Your task to perform on an android device: Open eBay Image 0: 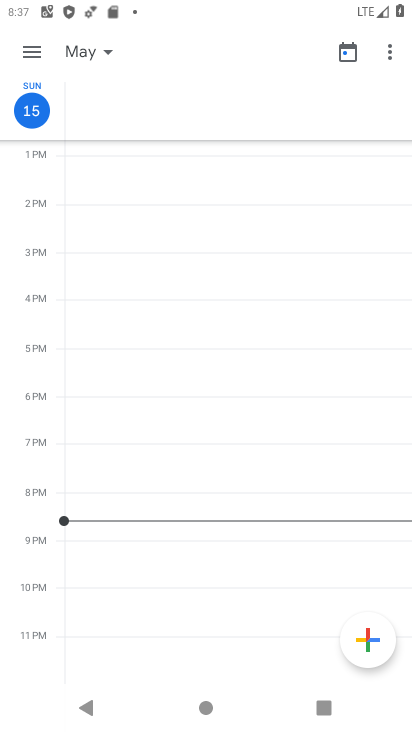
Step 0: press home button
Your task to perform on an android device: Open eBay Image 1: 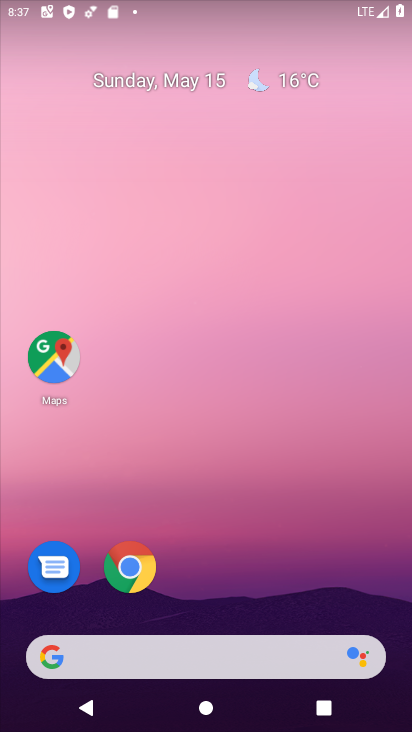
Step 1: drag from (230, 631) to (245, 99)
Your task to perform on an android device: Open eBay Image 2: 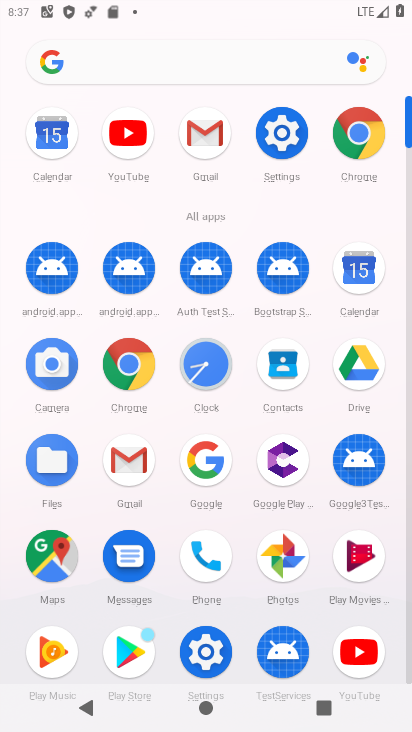
Step 2: click (350, 149)
Your task to perform on an android device: Open eBay Image 3: 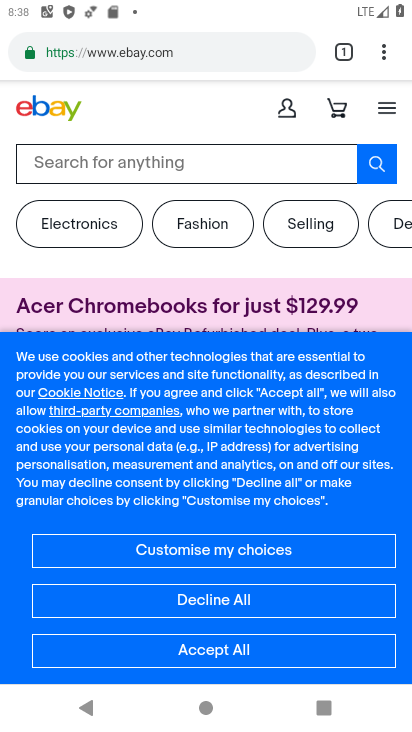
Step 3: task complete